Your task to perform on an android device: What is the news today? Image 0: 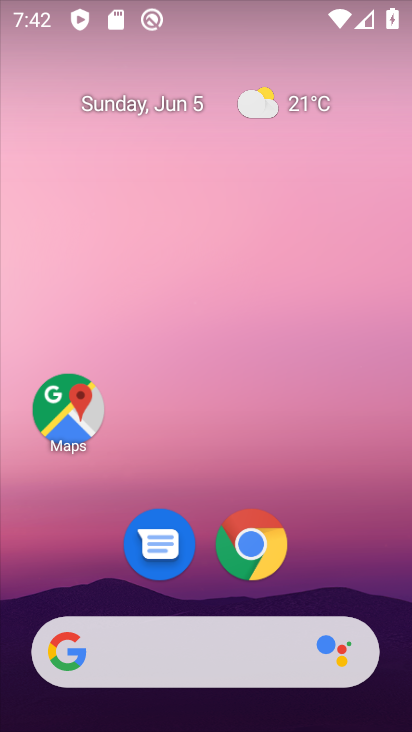
Step 0: drag from (0, 297) to (410, 338)
Your task to perform on an android device: What is the news today? Image 1: 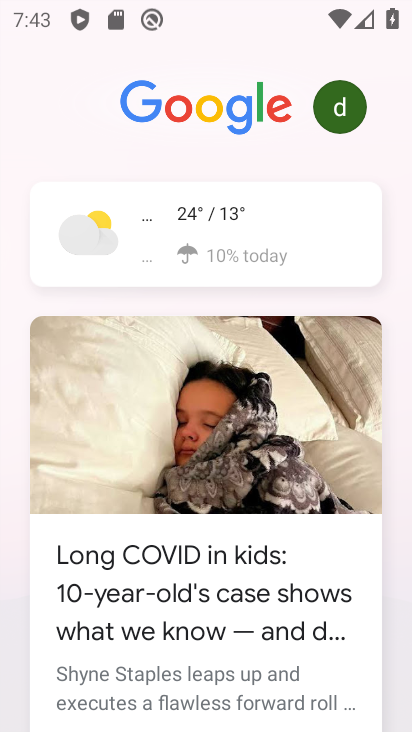
Step 1: task complete